Your task to perform on an android device: turn off notifications settings in the gmail app Image 0: 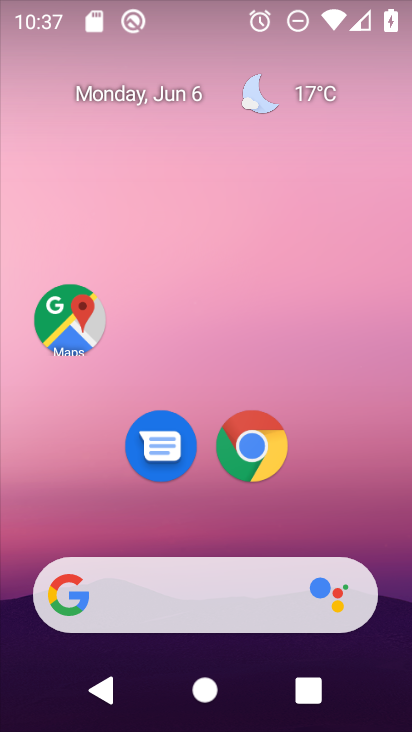
Step 0: drag from (215, 528) to (221, 1)
Your task to perform on an android device: turn off notifications settings in the gmail app Image 1: 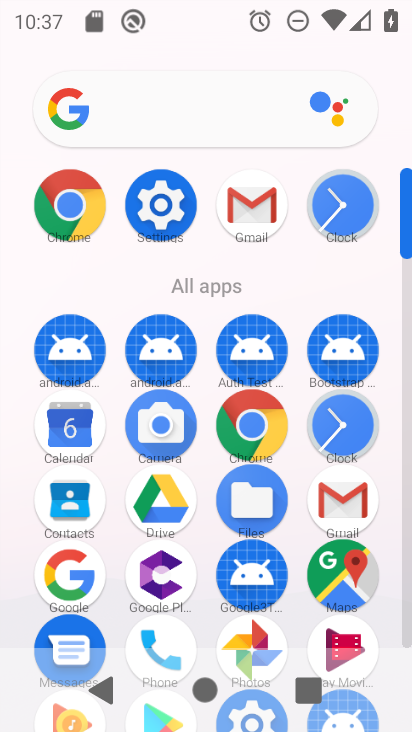
Step 1: click (271, 198)
Your task to perform on an android device: turn off notifications settings in the gmail app Image 2: 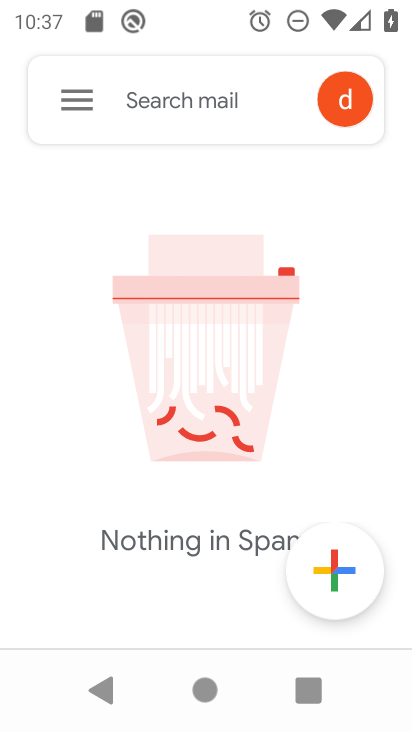
Step 2: click (84, 98)
Your task to perform on an android device: turn off notifications settings in the gmail app Image 3: 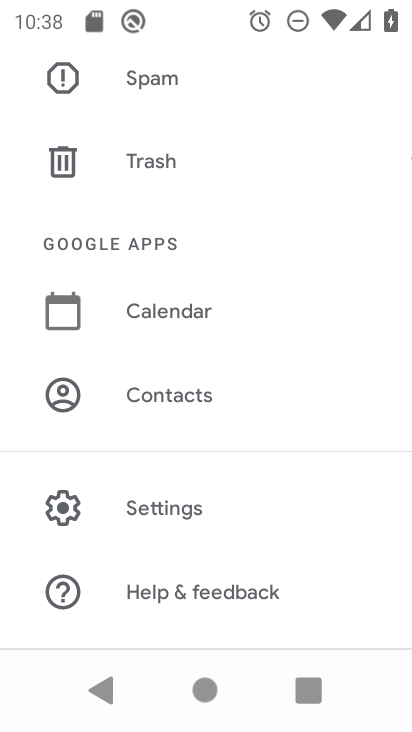
Step 3: click (166, 526)
Your task to perform on an android device: turn off notifications settings in the gmail app Image 4: 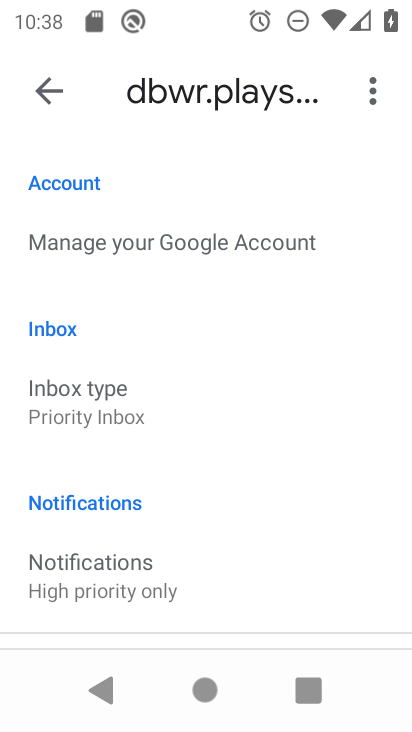
Step 4: click (92, 588)
Your task to perform on an android device: turn off notifications settings in the gmail app Image 5: 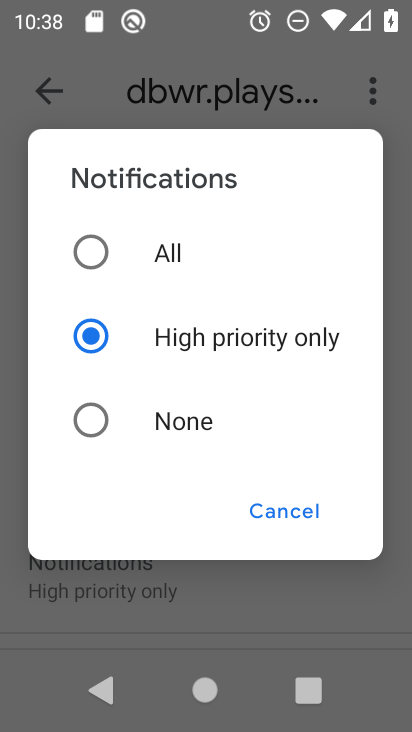
Step 5: click (153, 419)
Your task to perform on an android device: turn off notifications settings in the gmail app Image 6: 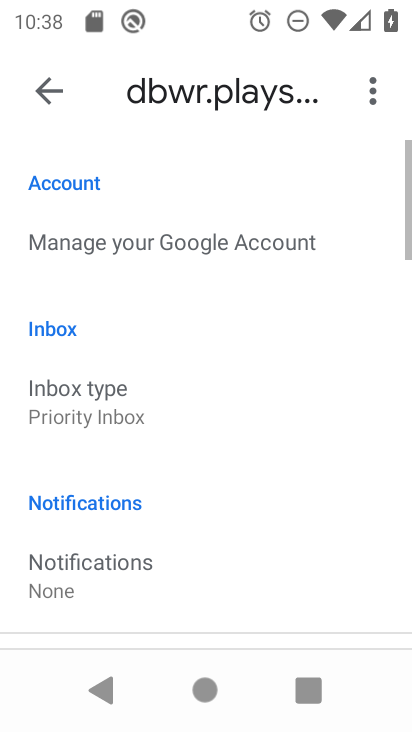
Step 6: task complete